Your task to perform on an android device: Open the calendar app, open the side menu, and click the "Day" option Image 0: 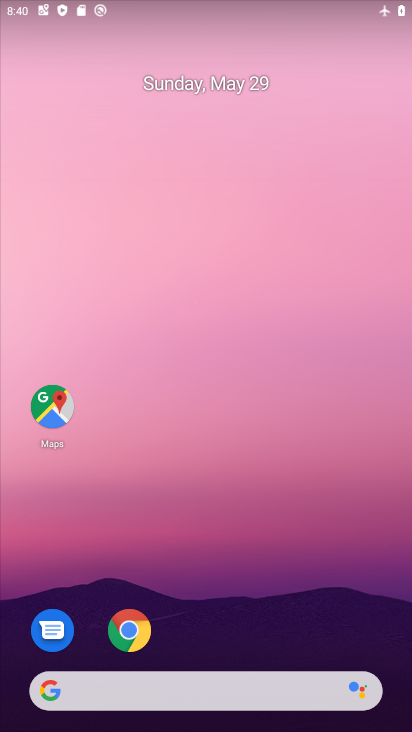
Step 0: drag from (200, 659) to (237, 59)
Your task to perform on an android device: Open the calendar app, open the side menu, and click the "Day" option Image 1: 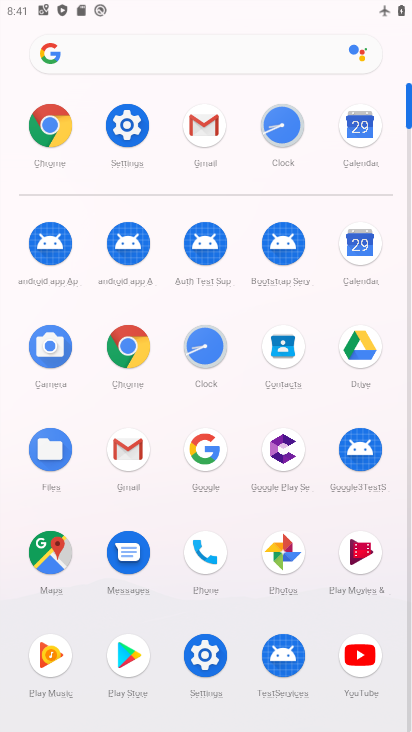
Step 1: click (343, 257)
Your task to perform on an android device: Open the calendar app, open the side menu, and click the "Day" option Image 2: 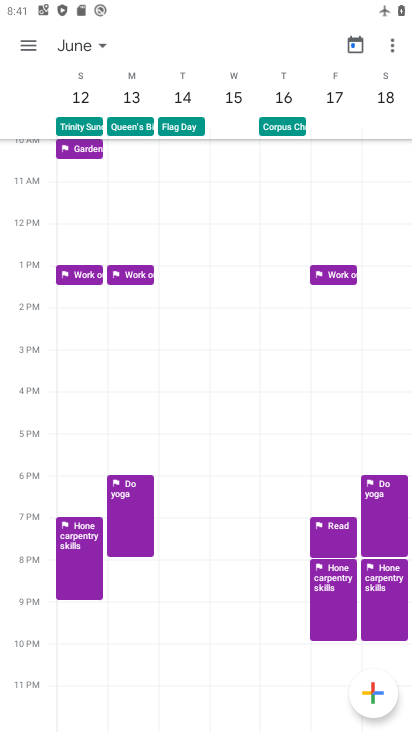
Step 2: click (29, 46)
Your task to perform on an android device: Open the calendar app, open the side menu, and click the "Day" option Image 3: 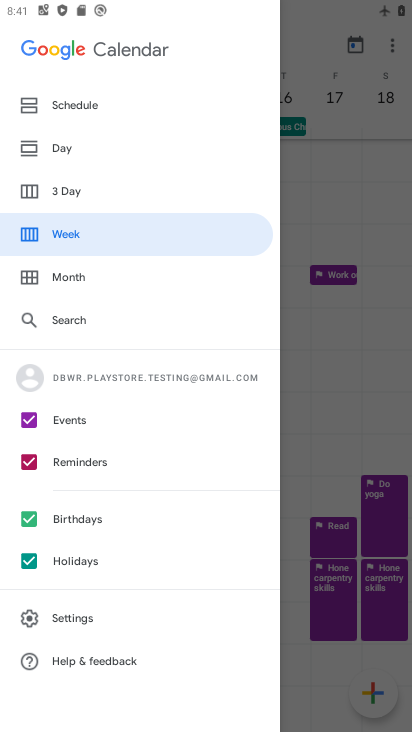
Step 3: click (48, 143)
Your task to perform on an android device: Open the calendar app, open the side menu, and click the "Day" option Image 4: 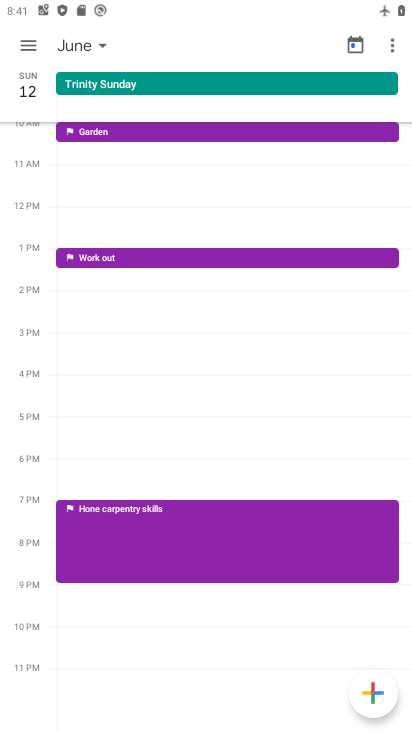
Step 4: task complete